Your task to perform on an android device: install app "File Manager" Image 0: 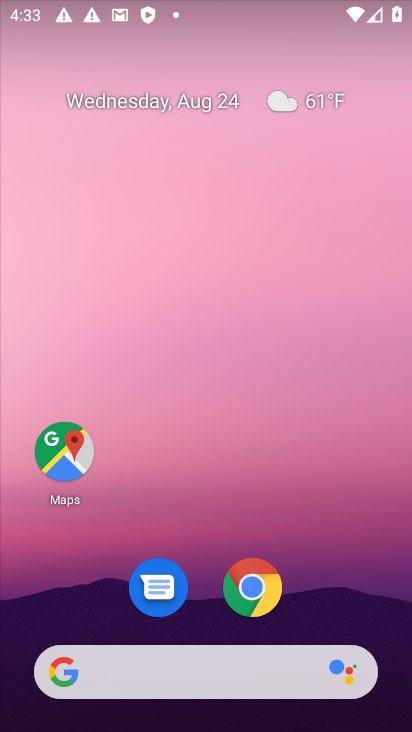
Step 0: drag from (203, 662) to (369, 19)
Your task to perform on an android device: install app "File Manager" Image 1: 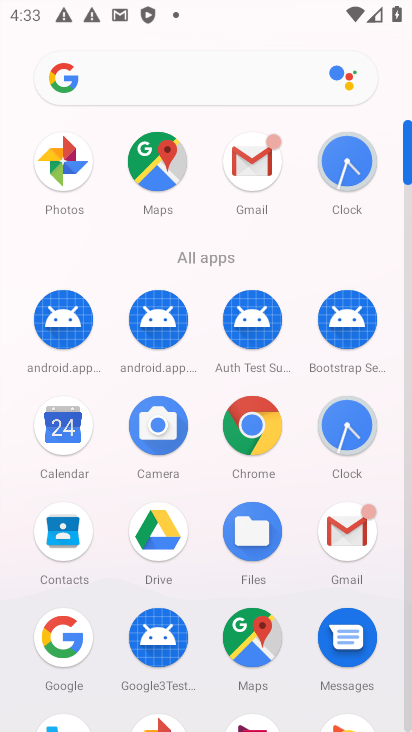
Step 1: drag from (297, 602) to (299, 389)
Your task to perform on an android device: install app "File Manager" Image 2: 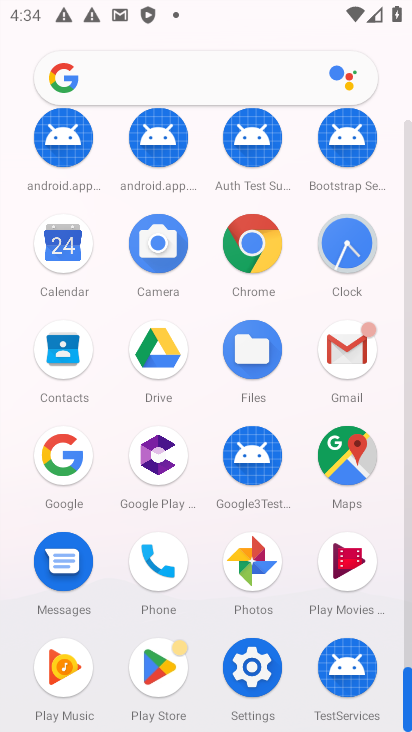
Step 2: click (164, 664)
Your task to perform on an android device: install app "File Manager" Image 3: 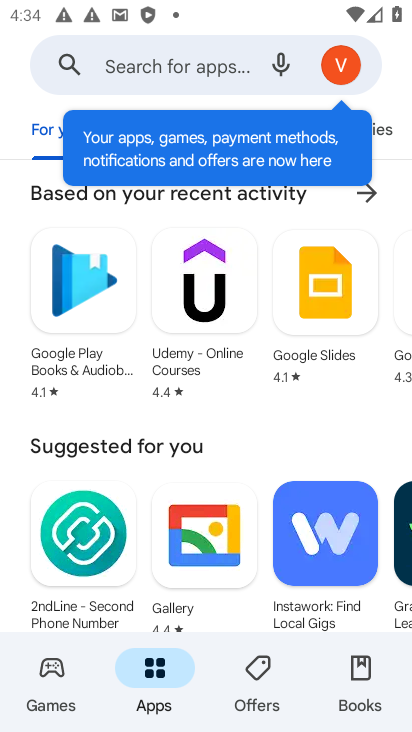
Step 3: click (162, 55)
Your task to perform on an android device: install app "File Manager" Image 4: 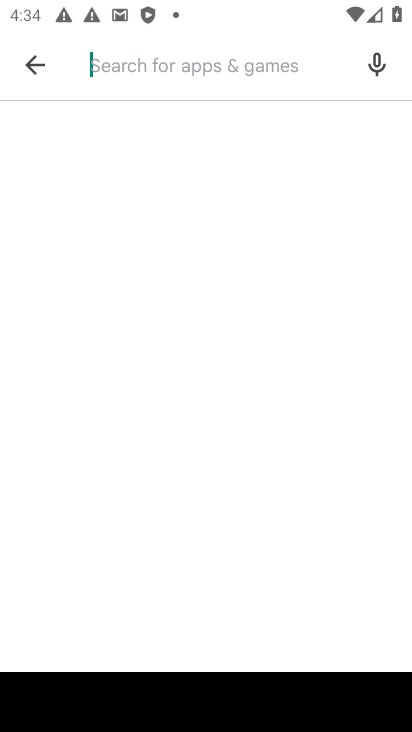
Step 4: type "File Manager"
Your task to perform on an android device: install app "File Manager" Image 5: 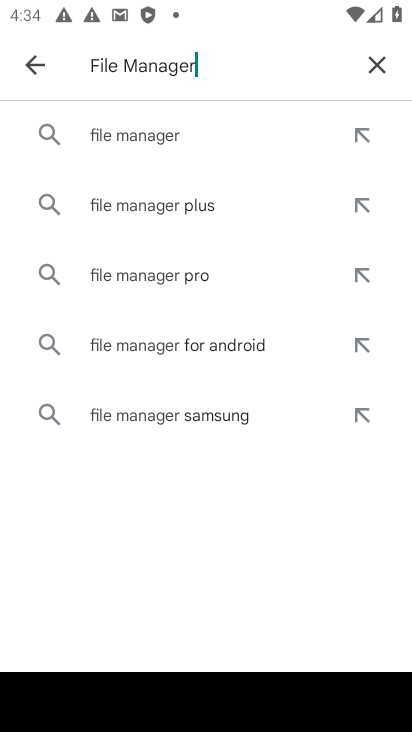
Step 5: click (144, 134)
Your task to perform on an android device: install app "File Manager" Image 6: 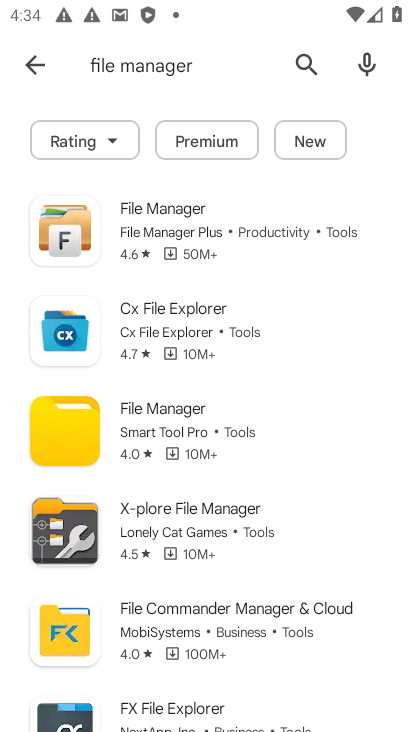
Step 6: task complete